Your task to perform on an android device: add a label to a message in the gmail app Image 0: 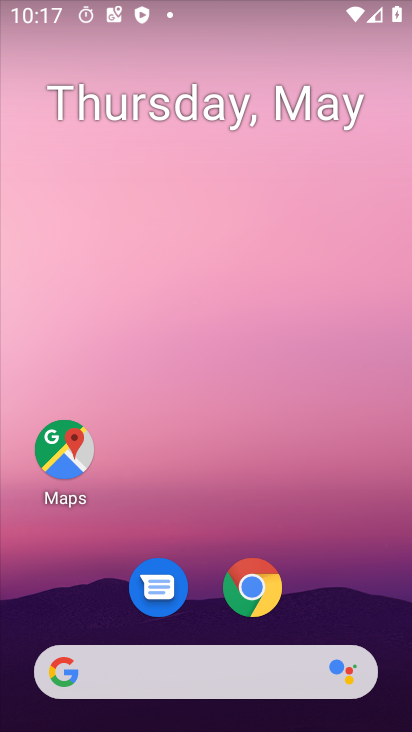
Step 0: drag from (361, 623) to (365, 3)
Your task to perform on an android device: add a label to a message in the gmail app Image 1: 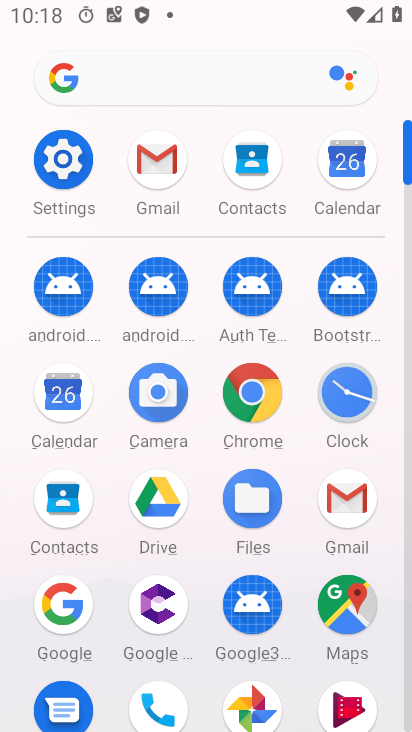
Step 1: click (156, 169)
Your task to perform on an android device: add a label to a message in the gmail app Image 2: 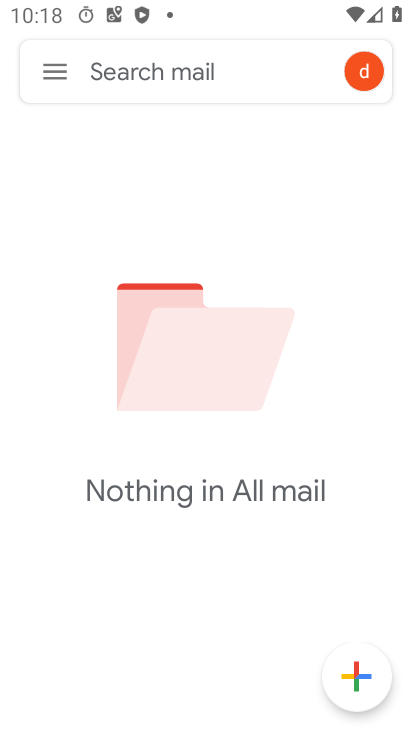
Step 2: task complete